Your task to perform on an android device: open app "Google Keep" Image 0: 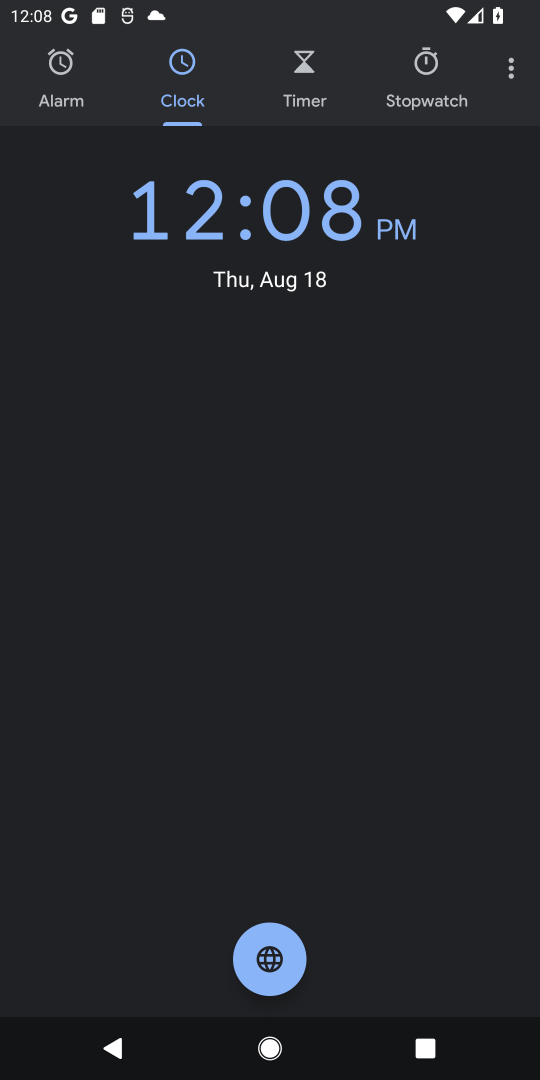
Step 0: press home button
Your task to perform on an android device: open app "Google Keep" Image 1: 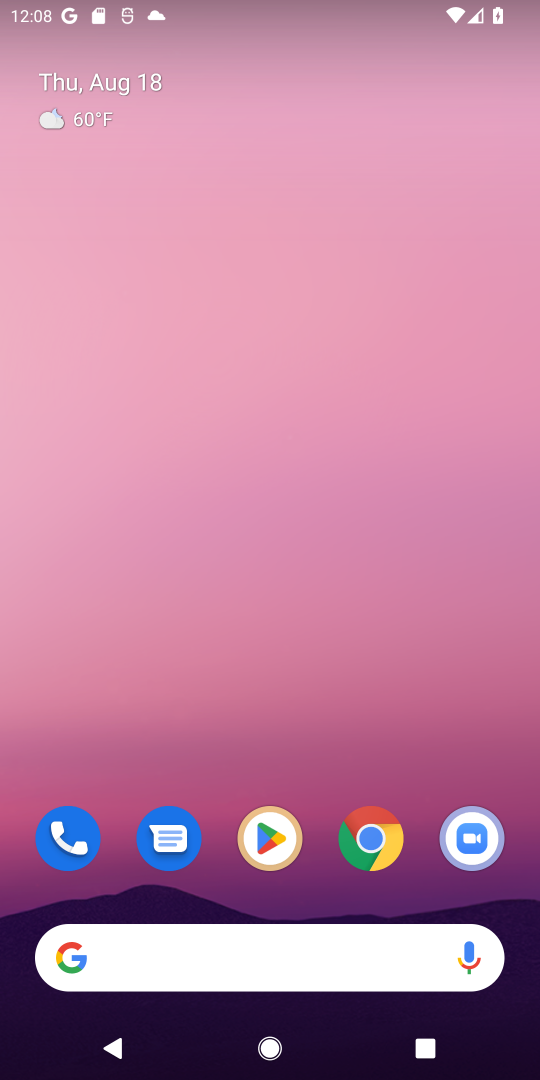
Step 1: click (271, 841)
Your task to perform on an android device: open app "Google Keep" Image 2: 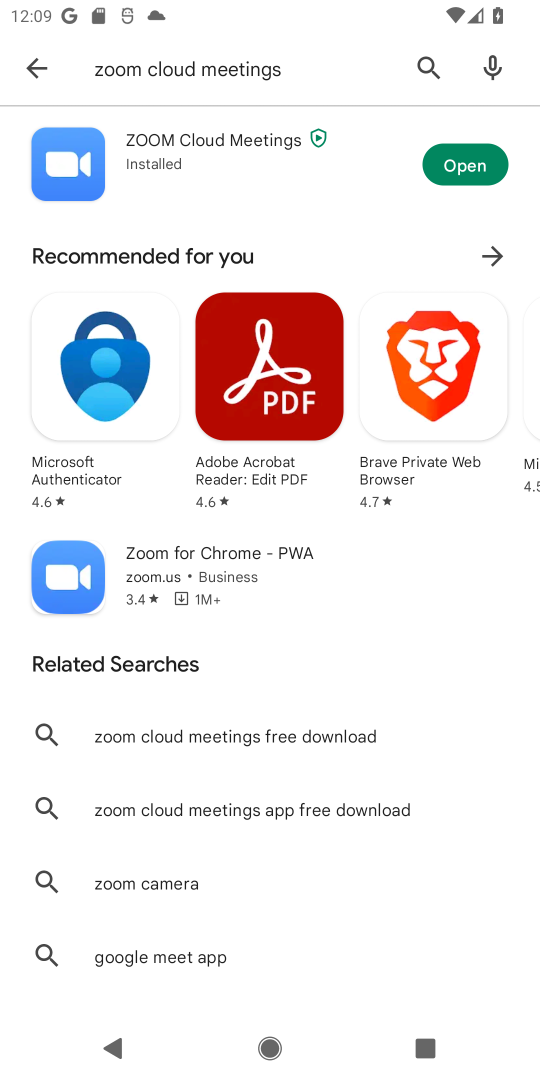
Step 2: click (423, 73)
Your task to perform on an android device: open app "Google Keep" Image 3: 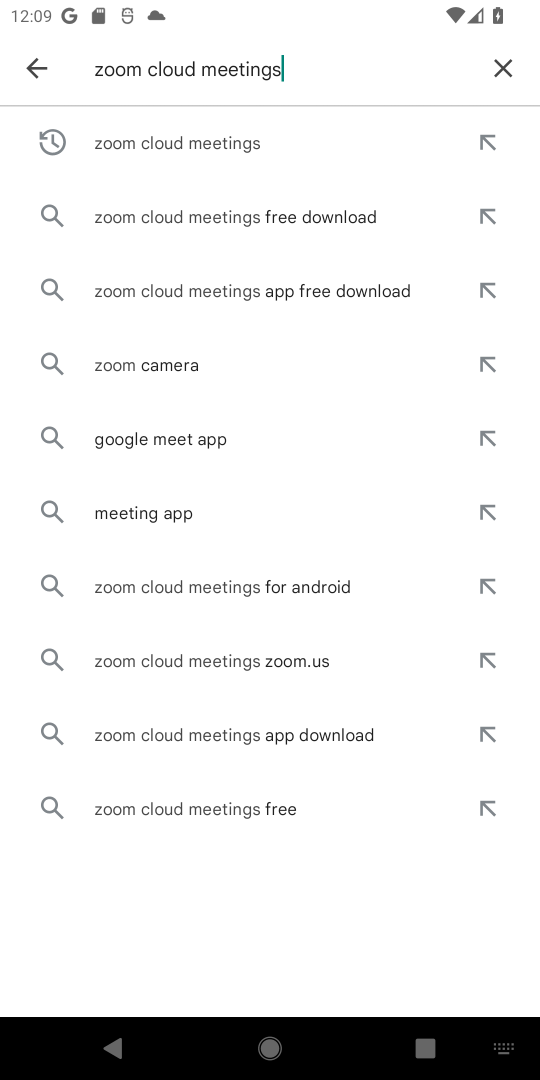
Step 3: click (499, 57)
Your task to perform on an android device: open app "Google Keep" Image 4: 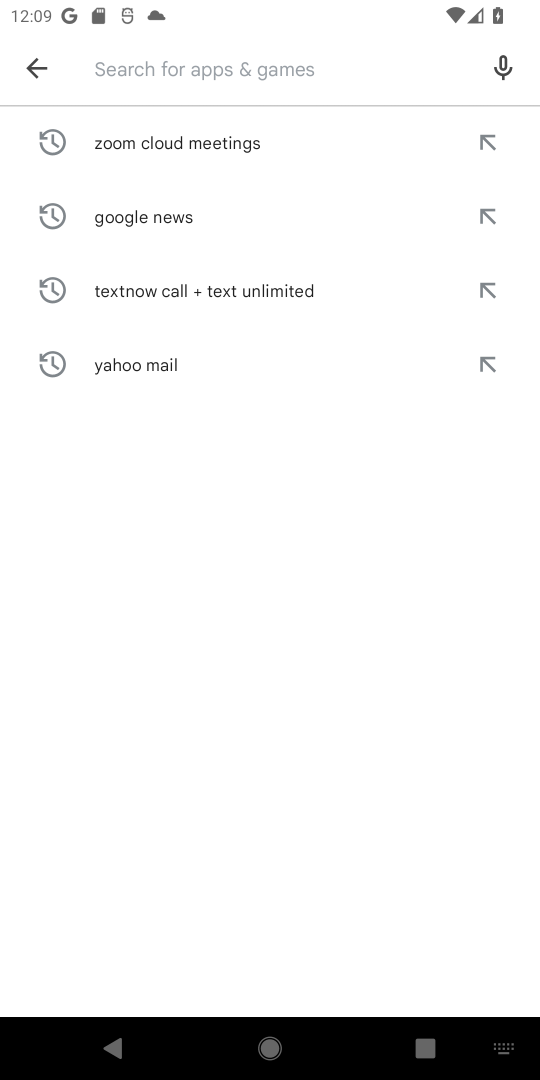
Step 4: type "Google Keep"
Your task to perform on an android device: open app "Google Keep" Image 5: 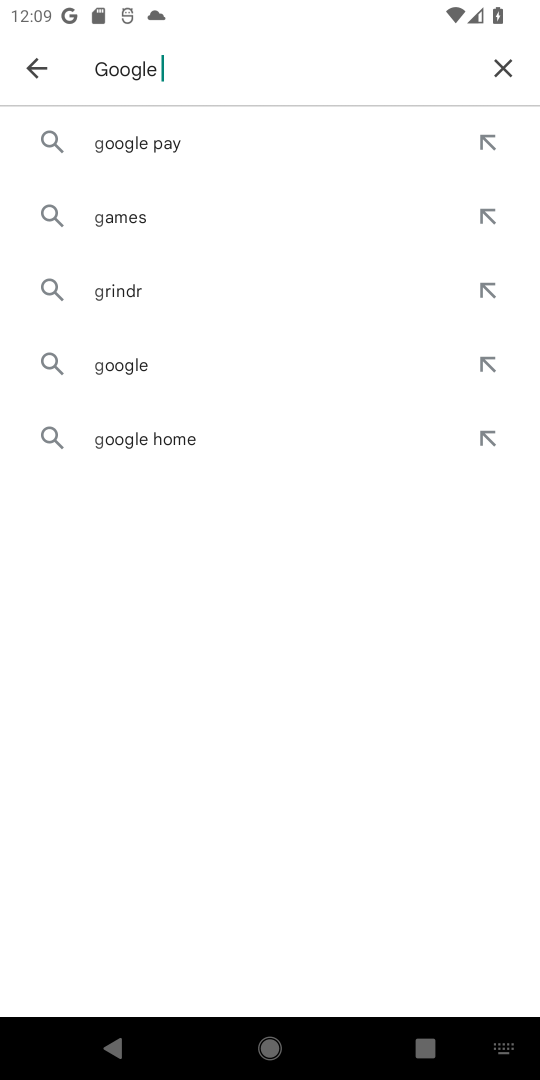
Step 5: type ""
Your task to perform on an android device: open app "Google Keep" Image 6: 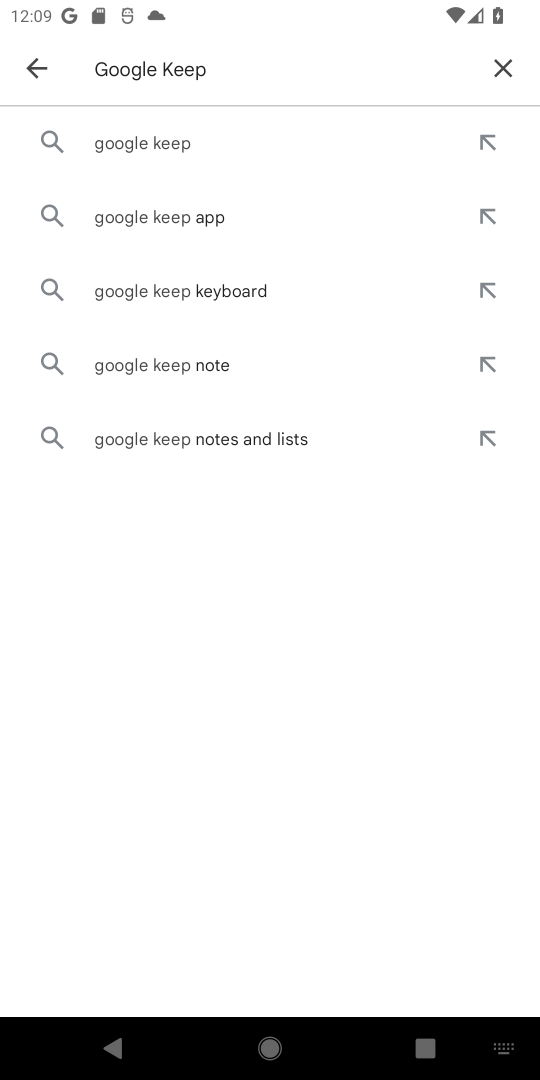
Step 6: click (132, 133)
Your task to perform on an android device: open app "Google Keep" Image 7: 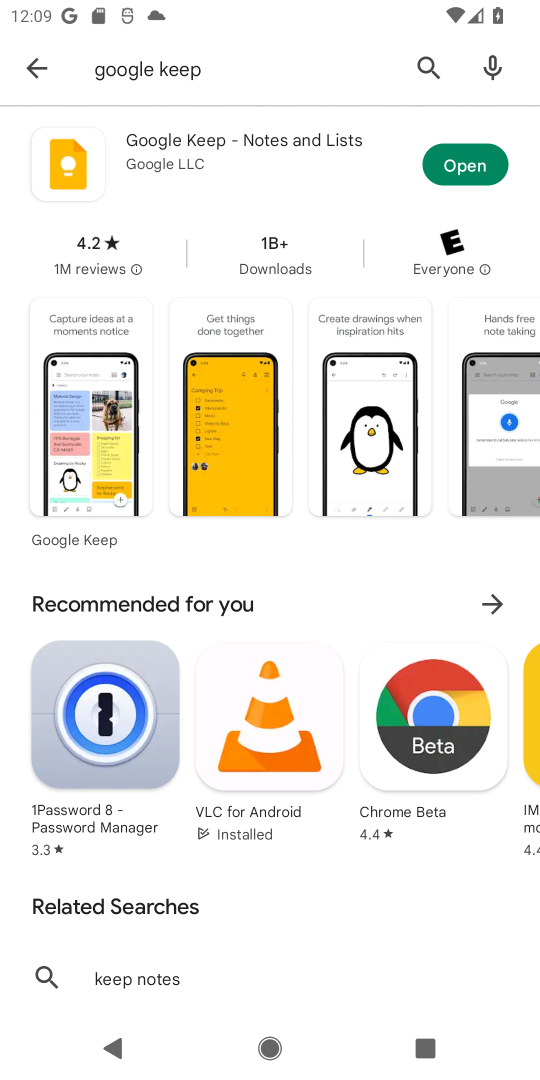
Step 7: click (473, 157)
Your task to perform on an android device: open app "Google Keep" Image 8: 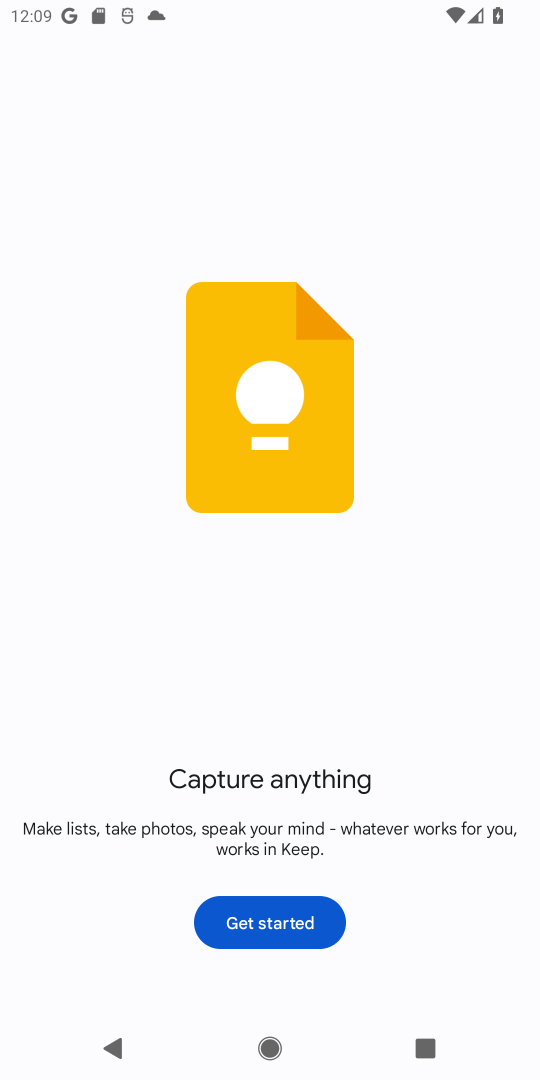
Step 8: task complete